Your task to perform on an android device: Open wifi settings Image 0: 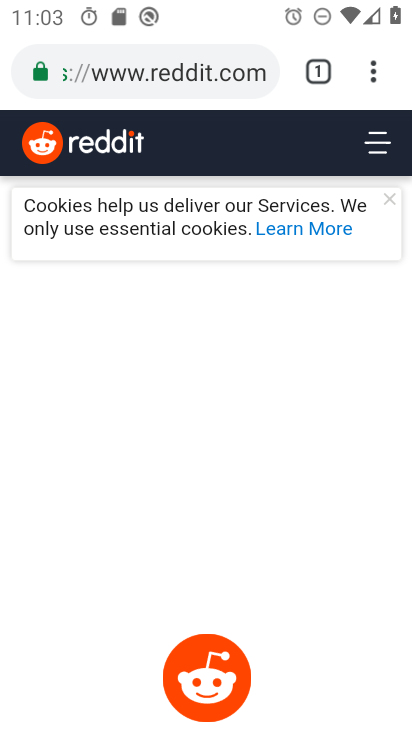
Step 0: press home button
Your task to perform on an android device: Open wifi settings Image 1: 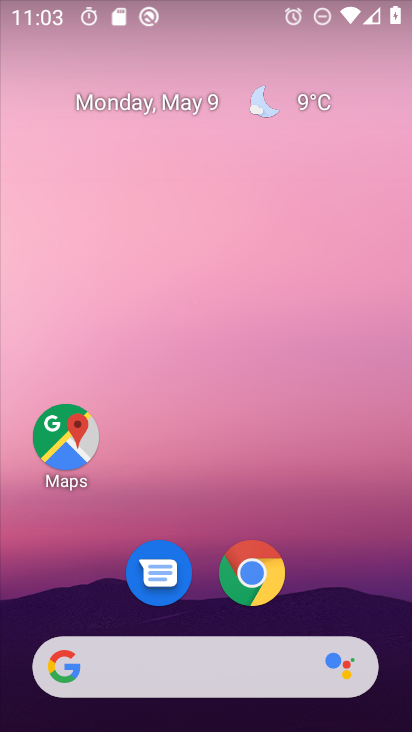
Step 1: drag from (329, 583) to (311, 246)
Your task to perform on an android device: Open wifi settings Image 2: 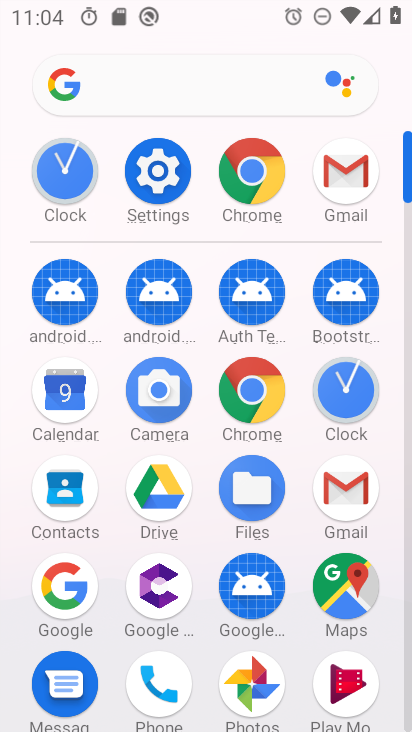
Step 2: click (158, 167)
Your task to perform on an android device: Open wifi settings Image 3: 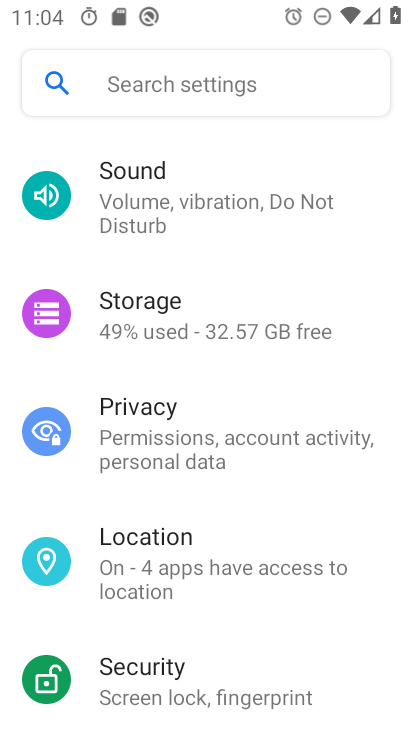
Step 3: drag from (253, 187) to (225, 698)
Your task to perform on an android device: Open wifi settings Image 4: 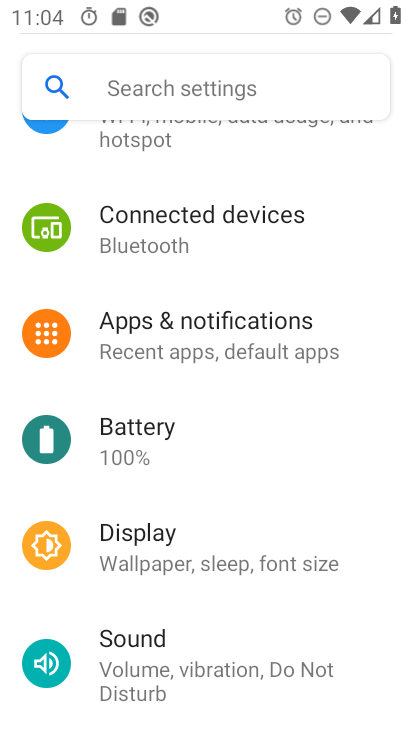
Step 4: drag from (245, 254) to (219, 648)
Your task to perform on an android device: Open wifi settings Image 5: 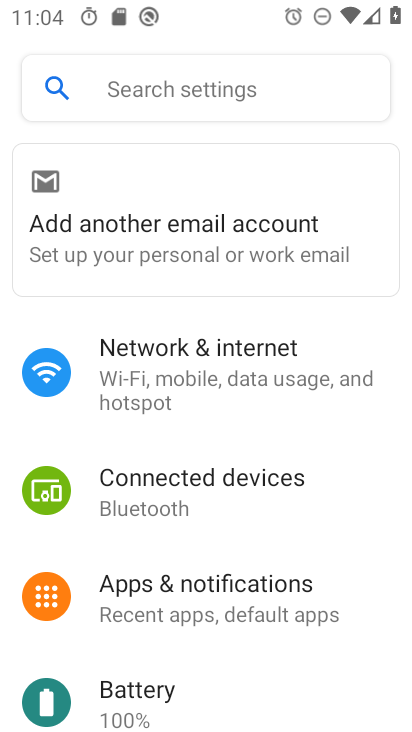
Step 5: click (203, 349)
Your task to perform on an android device: Open wifi settings Image 6: 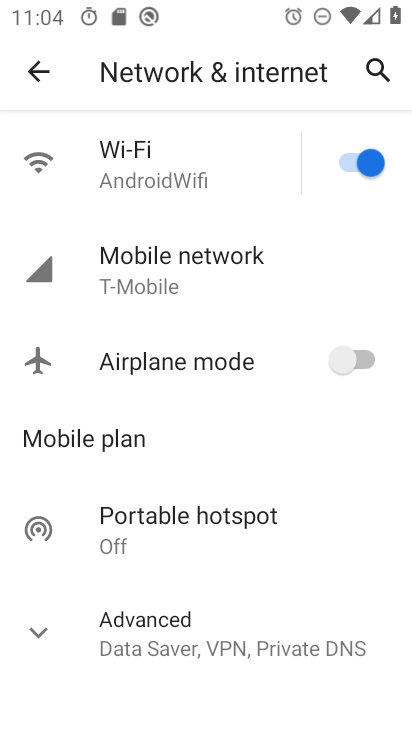
Step 6: click (235, 164)
Your task to perform on an android device: Open wifi settings Image 7: 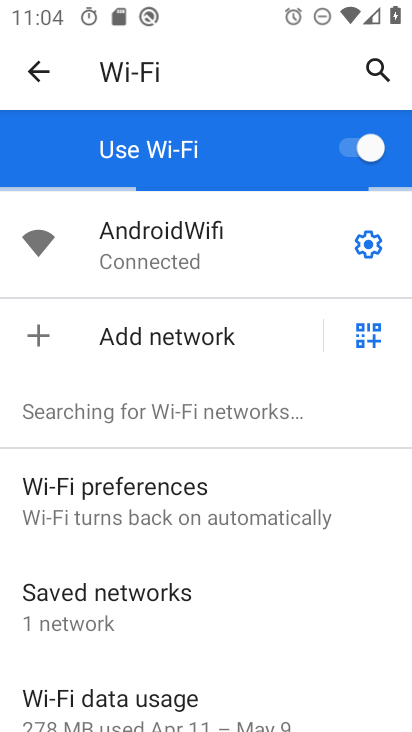
Step 7: click (375, 238)
Your task to perform on an android device: Open wifi settings Image 8: 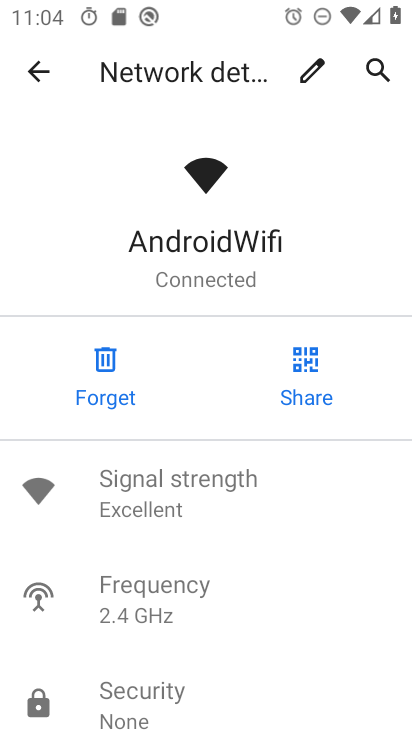
Step 8: task complete